Your task to perform on an android device: Show me productivity apps on the Play Store Image 0: 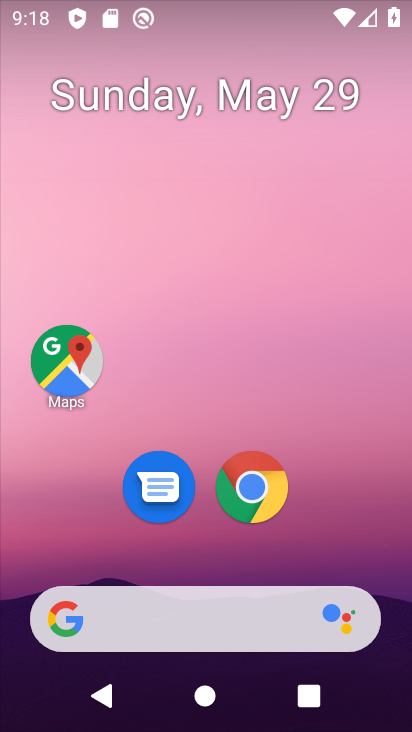
Step 0: drag from (384, 656) to (374, 117)
Your task to perform on an android device: Show me productivity apps on the Play Store Image 1: 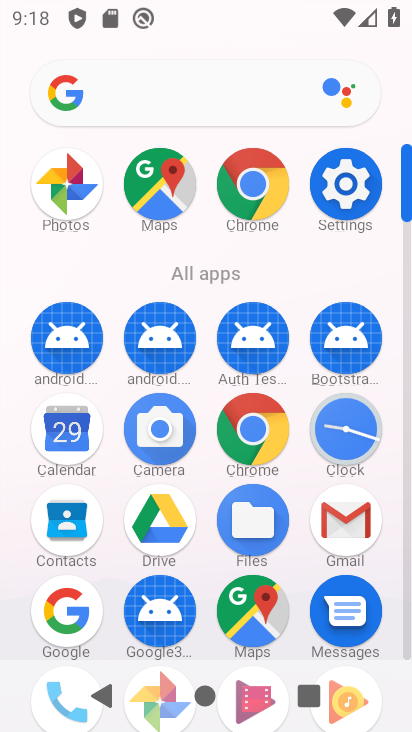
Step 1: drag from (210, 660) to (203, 156)
Your task to perform on an android device: Show me productivity apps on the Play Store Image 2: 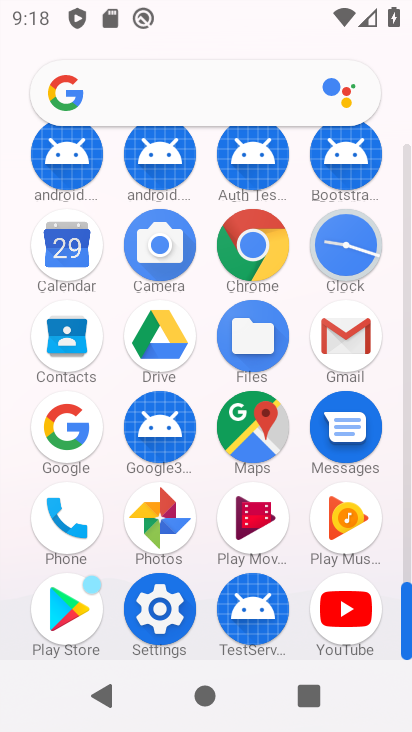
Step 2: click (63, 601)
Your task to perform on an android device: Show me productivity apps on the Play Store Image 3: 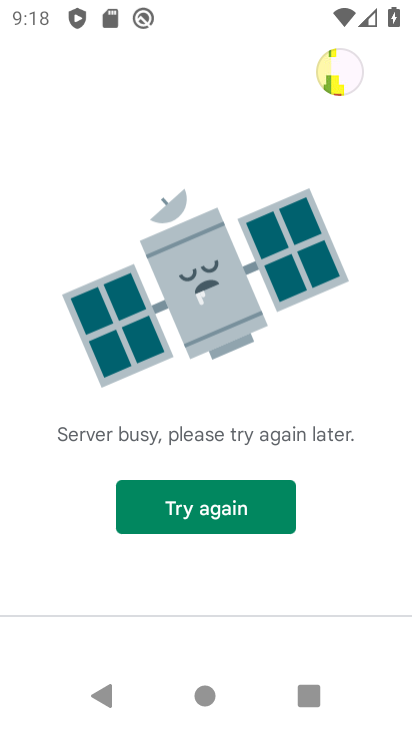
Step 3: click (247, 524)
Your task to perform on an android device: Show me productivity apps on the Play Store Image 4: 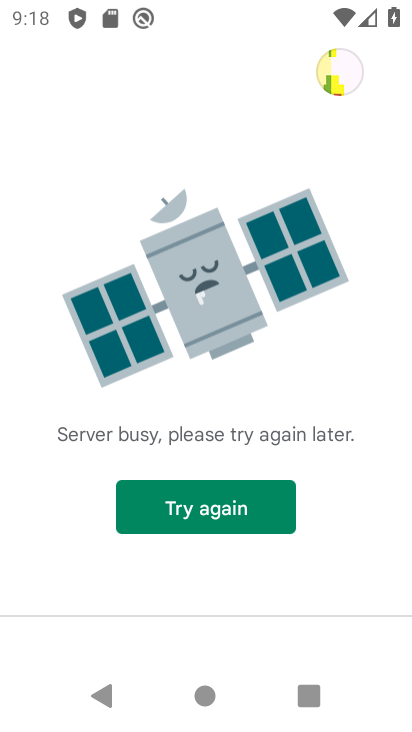
Step 4: click (247, 520)
Your task to perform on an android device: Show me productivity apps on the Play Store Image 5: 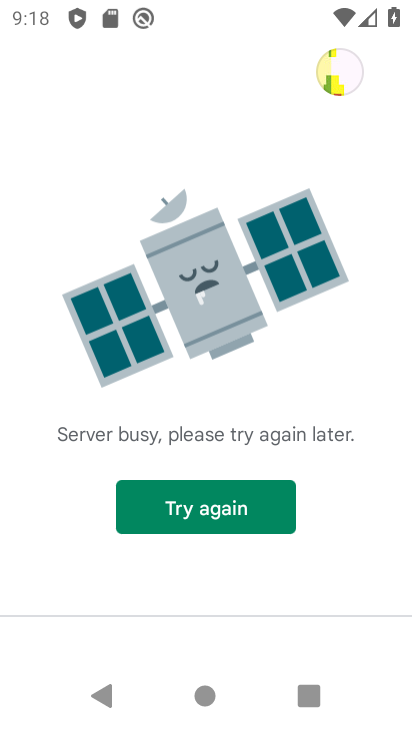
Step 5: task complete